Your task to perform on an android device: add a label to a message in the gmail app Image 0: 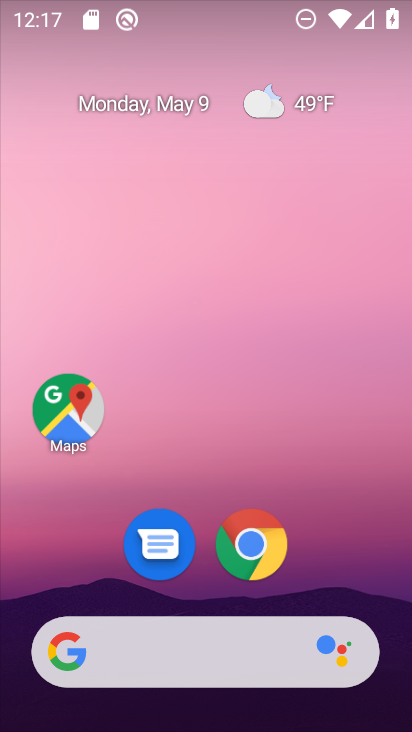
Step 0: drag from (348, 525) to (362, 153)
Your task to perform on an android device: add a label to a message in the gmail app Image 1: 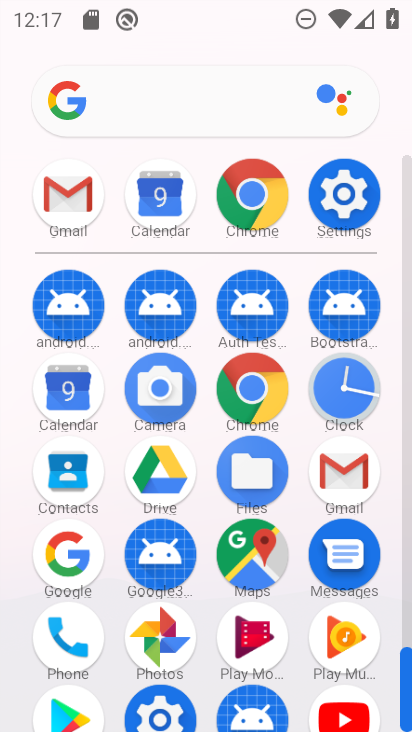
Step 1: click (74, 204)
Your task to perform on an android device: add a label to a message in the gmail app Image 2: 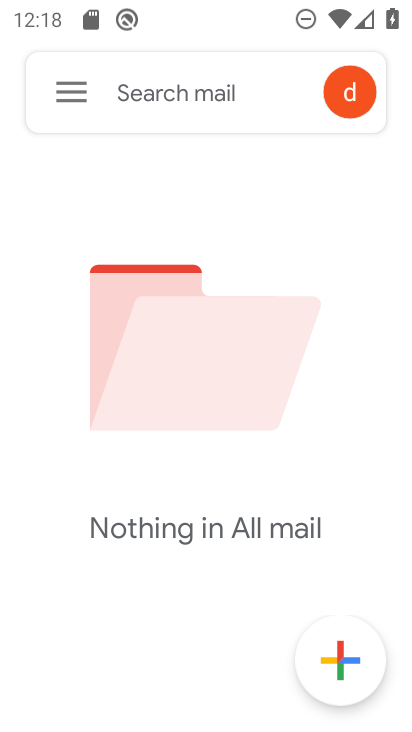
Step 2: task complete